Your task to perform on an android device: toggle notification dots Image 0: 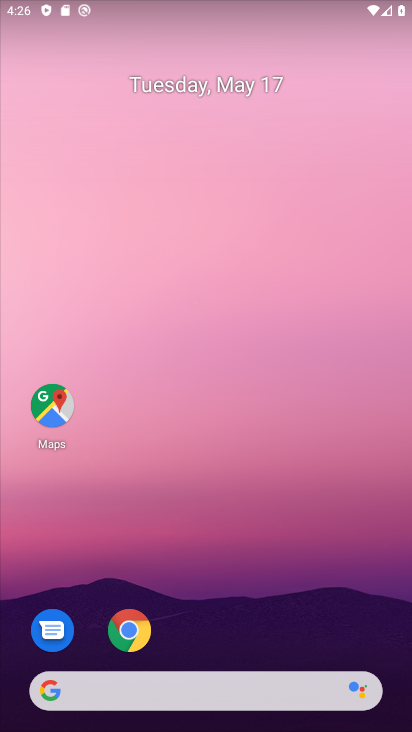
Step 0: drag from (261, 638) to (275, 109)
Your task to perform on an android device: toggle notification dots Image 1: 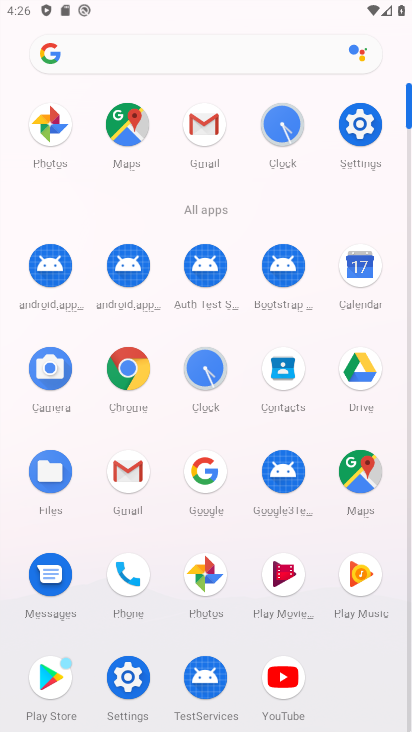
Step 1: click (370, 128)
Your task to perform on an android device: toggle notification dots Image 2: 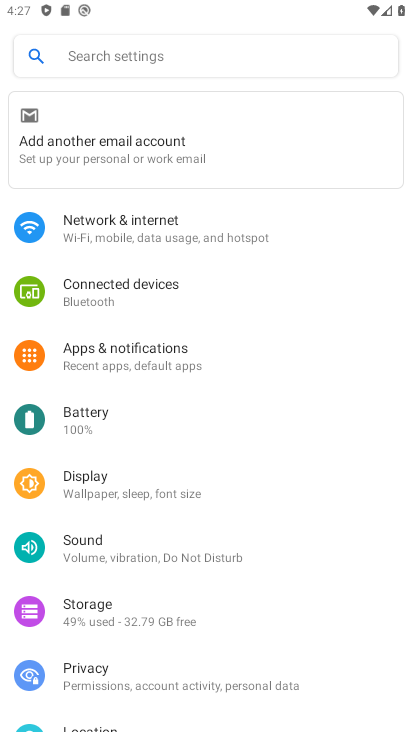
Step 2: click (125, 360)
Your task to perform on an android device: toggle notification dots Image 3: 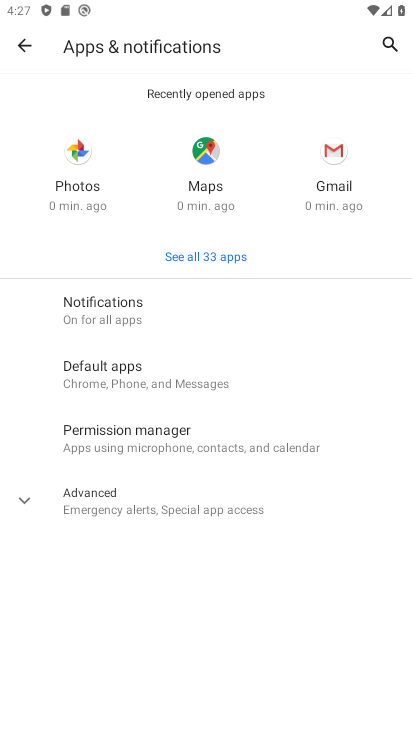
Step 3: click (126, 325)
Your task to perform on an android device: toggle notification dots Image 4: 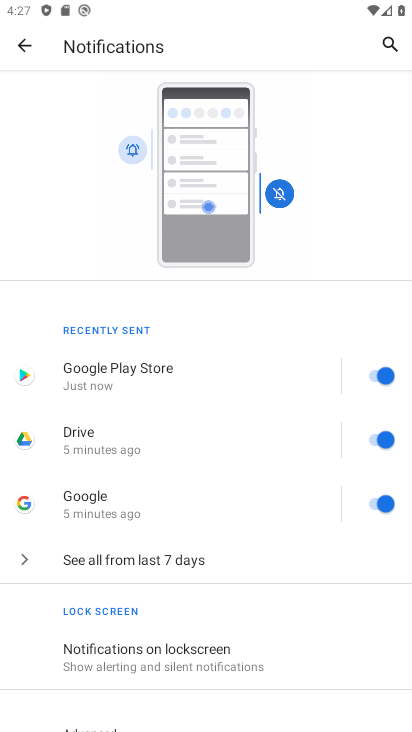
Step 4: drag from (292, 640) to (320, 201)
Your task to perform on an android device: toggle notification dots Image 5: 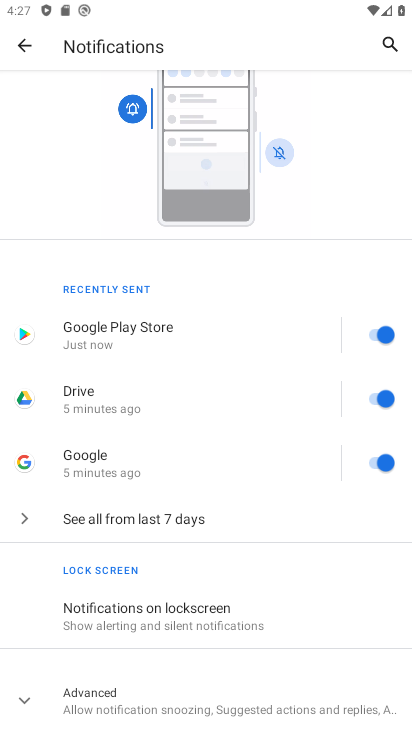
Step 5: click (57, 698)
Your task to perform on an android device: toggle notification dots Image 6: 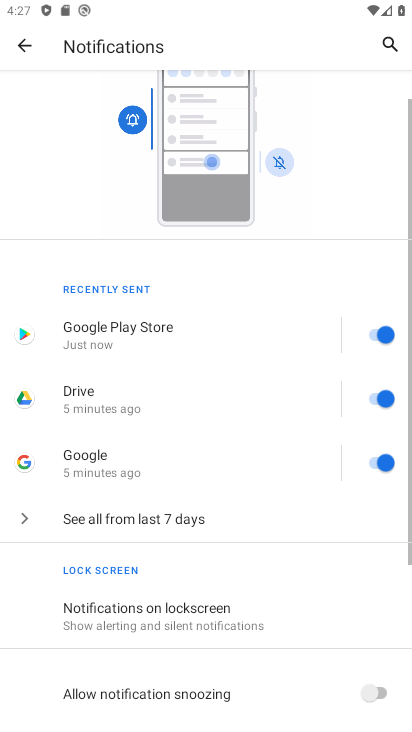
Step 6: drag from (316, 567) to (310, 303)
Your task to perform on an android device: toggle notification dots Image 7: 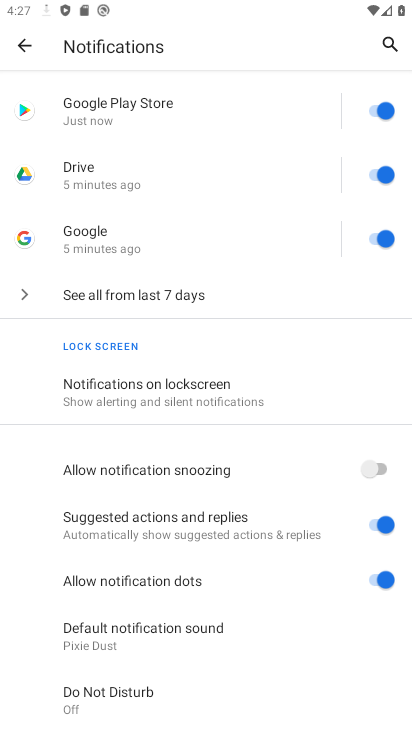
Step 7: click (372, 574)
Your task to perform on an android device: toggle notification dots Image 8: 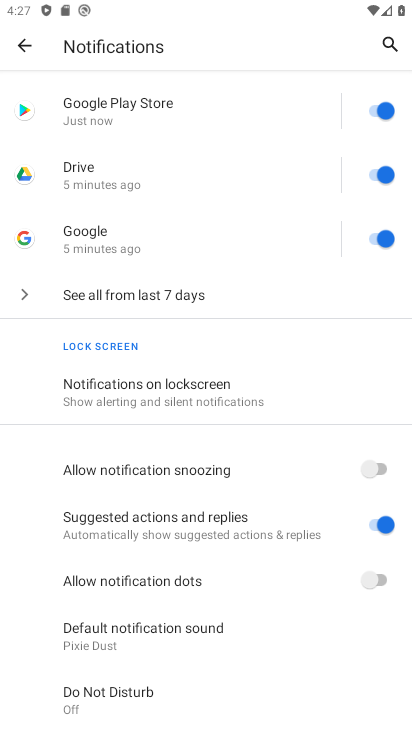
Step 8: task complete